Your task to perform on an android device: open a bookmark in the chrome app Image 0: 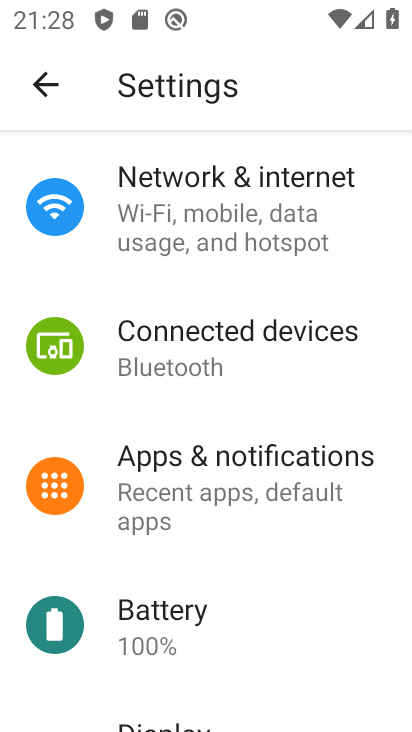
Step 0: press home button
Your task to perform on an android device: open a bookmark in the chrome app Image 1: 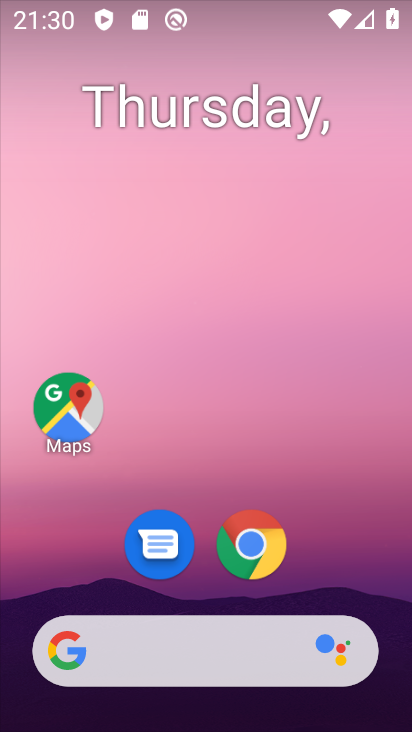
Step 1: click (259, 558)
Your task to perform on an android device: open a bookmark in the chrome app Image 2: 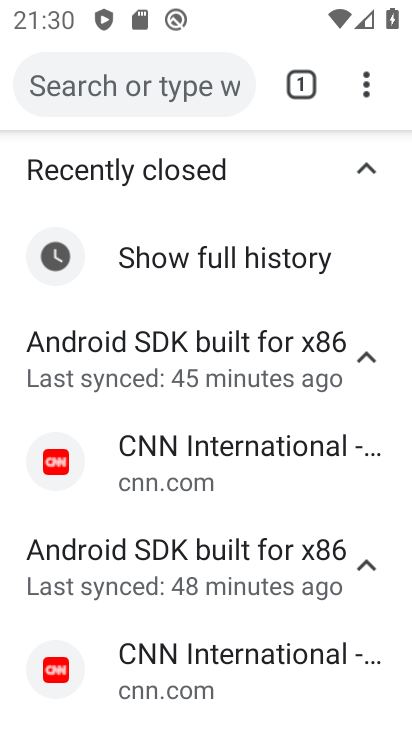
Step 2: click (364, 76)
Your task to perform on an android device: open a bookmark in the chrome app Image 3: 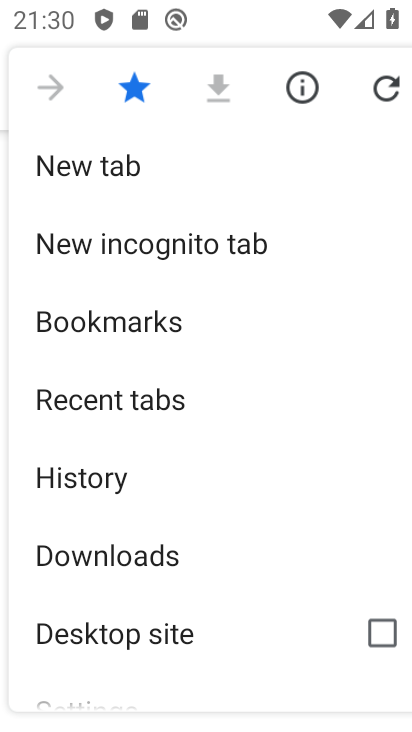
Step 3: click (167, 311)
Your task to perform on an android device: open a bookmark in the chrome app Image 4: 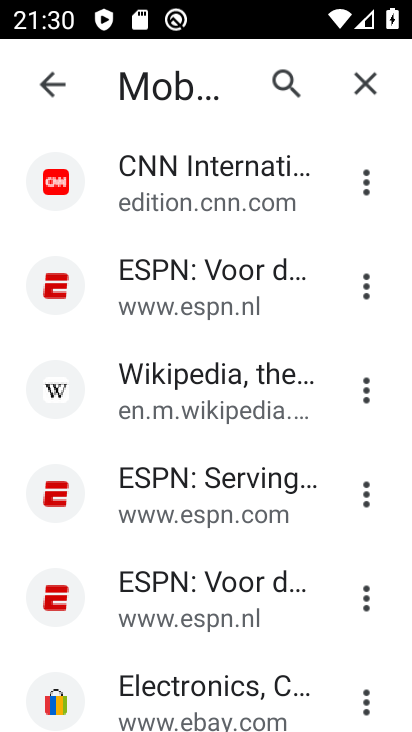
Step 4: click (241, 491)
Your task to perform on an android device: open a bookmark in the chrome app Image 5: 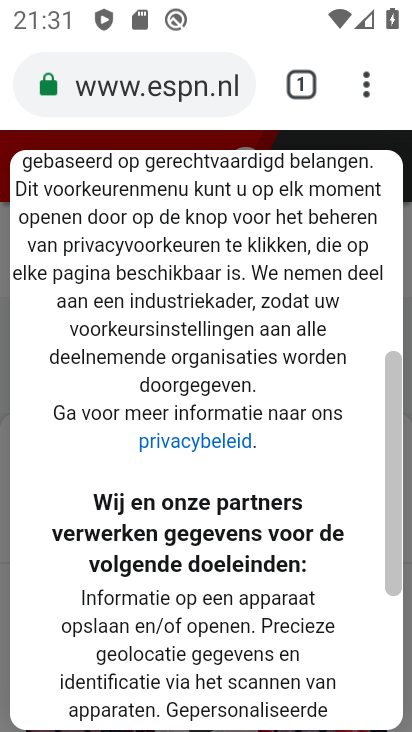
Step 5: task complete